Your task to perform on an android device: Open the Play Movies app and select the watchlist tab. Image 0: 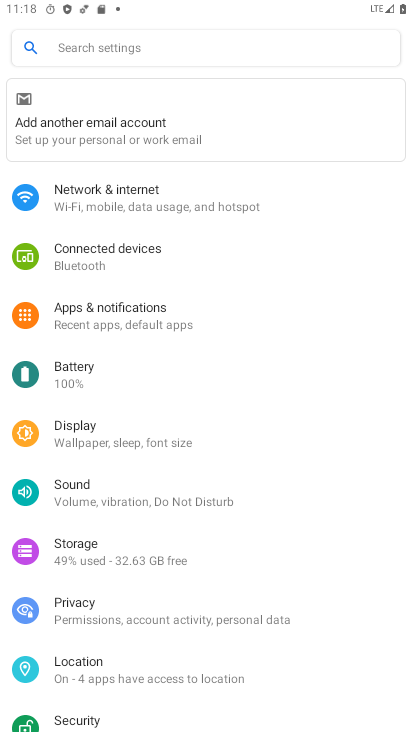
Step 0: press home button
Your task to perform on an android device: Open the Play Movies app and select the watchlist tab. Image 1: 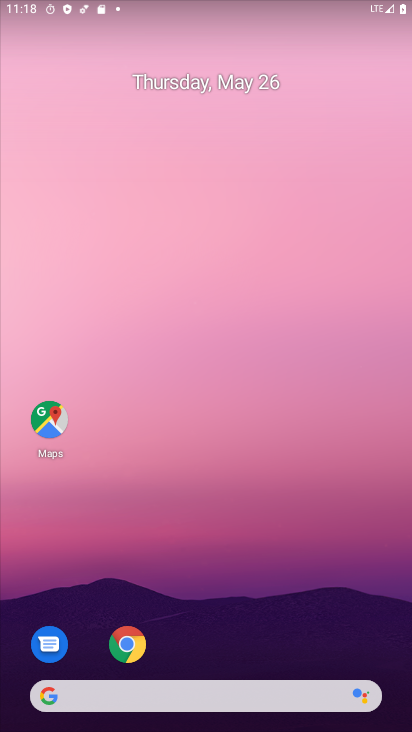
Step 1: drag from (125, 731) to (132, 51)
Your task to perform on an android device: Open the Play Movies app and select the watchlist tab. Image 2: 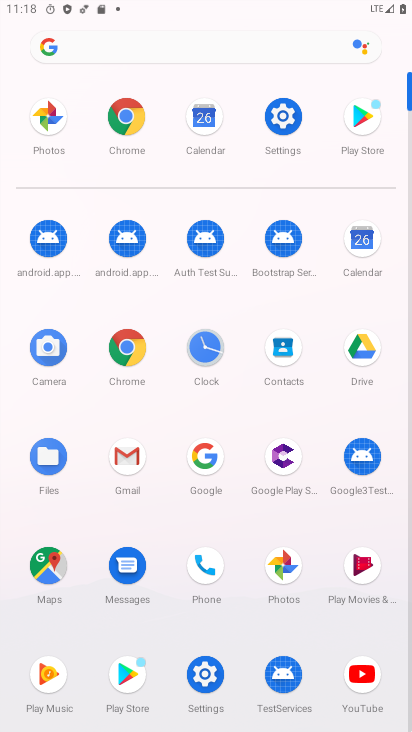
Step 2: click (364, 577)
Your task to perform on an android device: Open the Play Movies app and select the watchlist tab. Image 3: 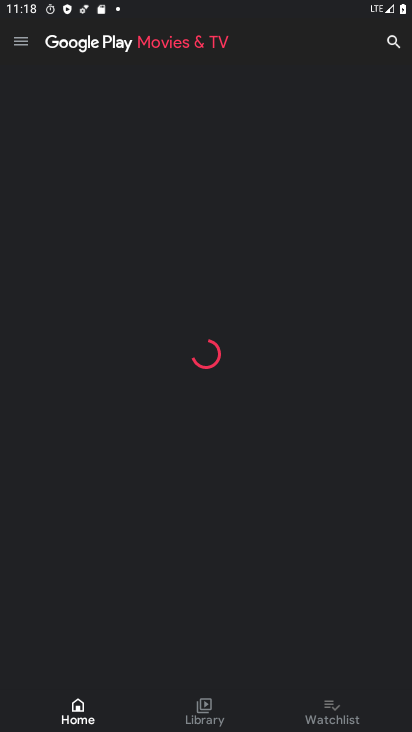
Step 3: click (327, 706)
Your task to perform on an android device: Open the Play Movies app and select the watchlist tab. Image 4: 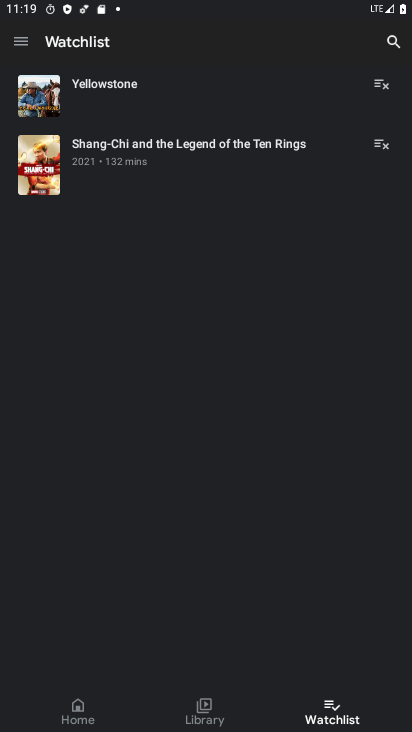
Step 4: task complete